Your task to perform on an android device: Search for sushi restaurants on Maps Image 0: 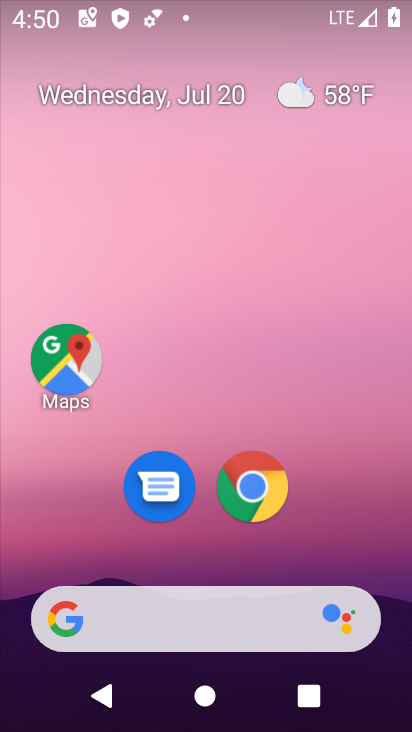
Step 0: click (71, 386)
Your task to perform on an android device: Search for sushi restaurants on Maps Image 1: 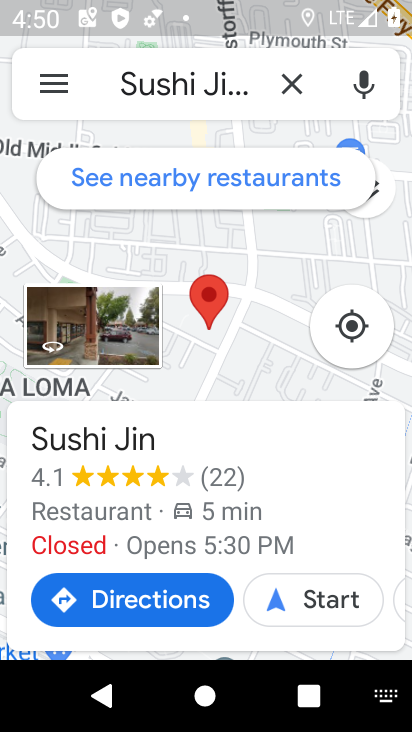
Step 1: click (232, 84)
Your task to perform on an android device: Search for sushi restaurants on Maps Image 2: 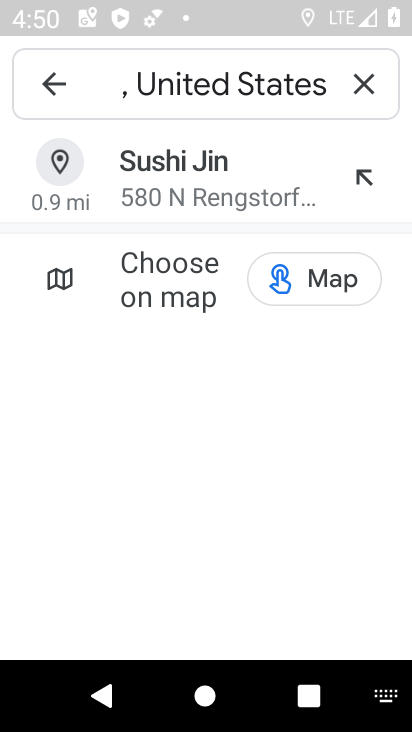
Step 2: click (360, 82)
Your task to perform on an android device: Search for sushi restaurants on Maps Image 3: 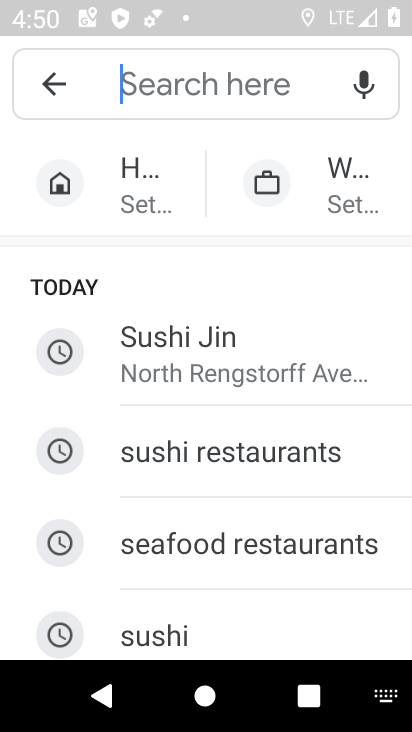
Step 3: click (219, 468)
Your task to perform on an android device: Search for sushi restaurants on Maps Image 4: 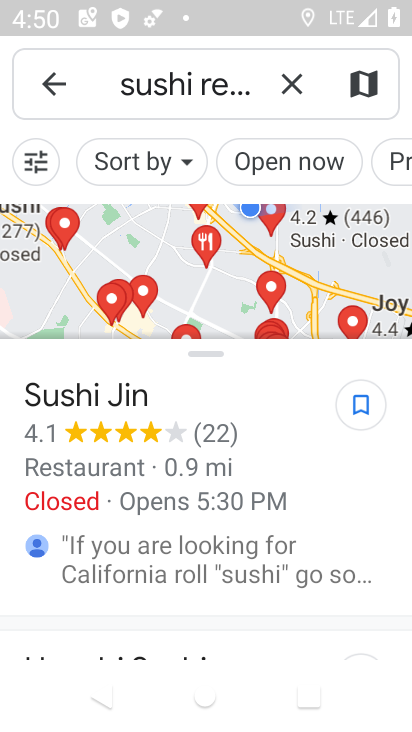
Step 4: task complete